Your task to perform on an android device: Show me productivity apps on the Play Store Image 0: 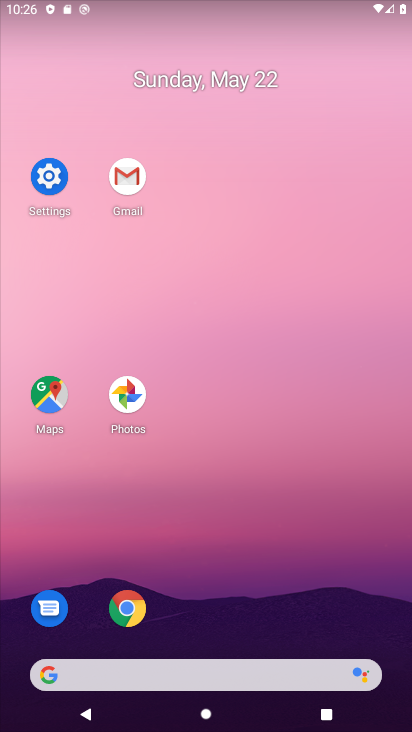
Step 0: drag from (220, 521) to (265, 85)
Your task to perform on an android device: Show me productivity apps on the Play Store Image 1: 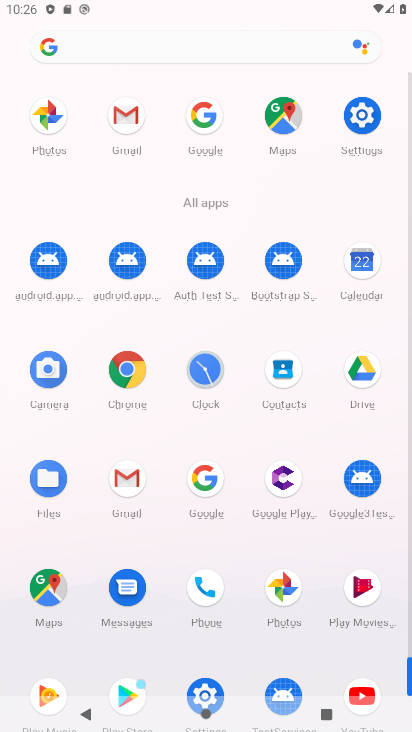
Step 1: drag from (210, 663) to (187, 309)
Your task to perform on an android device: Show me productivity apps on the Play Store Image 2: 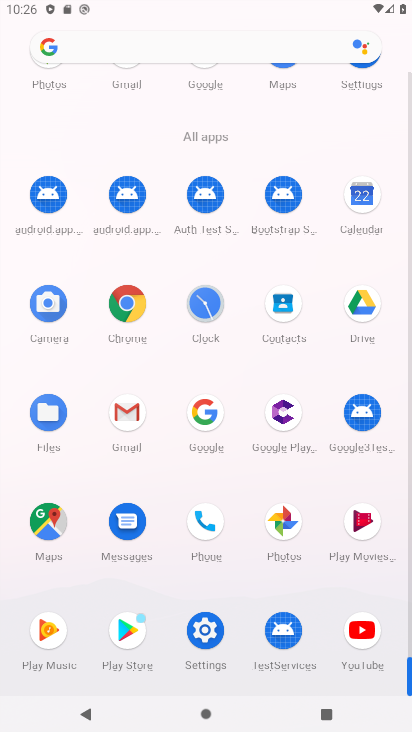
Step 2: drag from (131, 627) to (179, 575)
Your task to perform on an android device: Show me productivity apps on the Play Store Image 3: 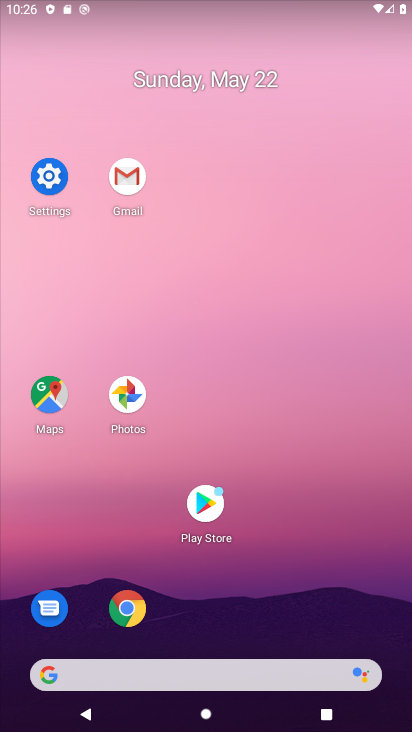
Step 3: click (205, 512)
Your task to perform on an android device: Show me productivity apps on the Play Store Image 4: 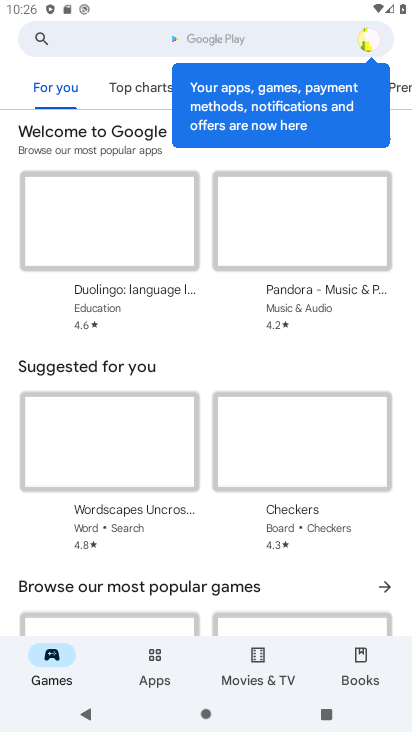
Step 4: click (156, 673)
Your task to perform on an android device: Show me productivity apps on the Play Store Image 5: 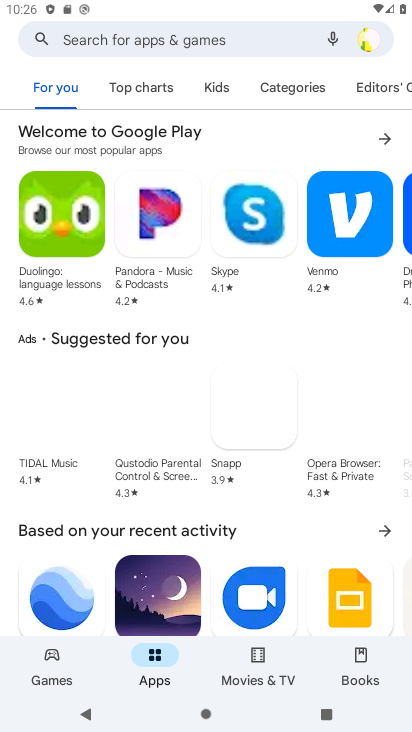
Step 5: click (307, 87)
Your task to perform on an android device: Show me productivity apps on the Play Store Image 6: 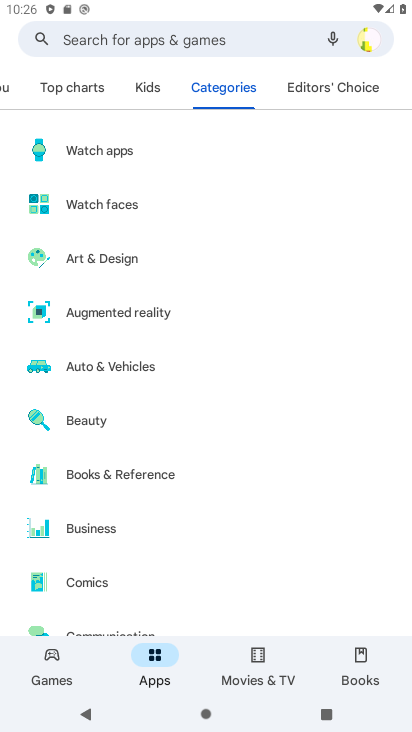
Step 6: drag from (206, 543) to (244, 89)
Your task to perform on an android device: Show me productivity apps on the Play Store Image 7: 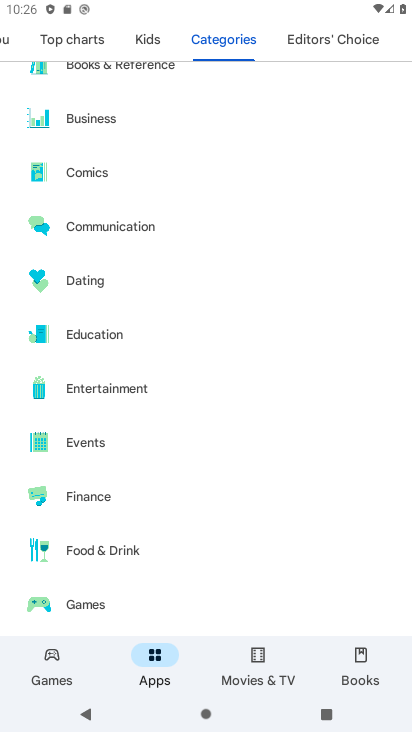
Step 7: drag from (176, 520) to (203, 0)
Your task to perform on an android device: Show me productivity apps on the Play Store Image 8: 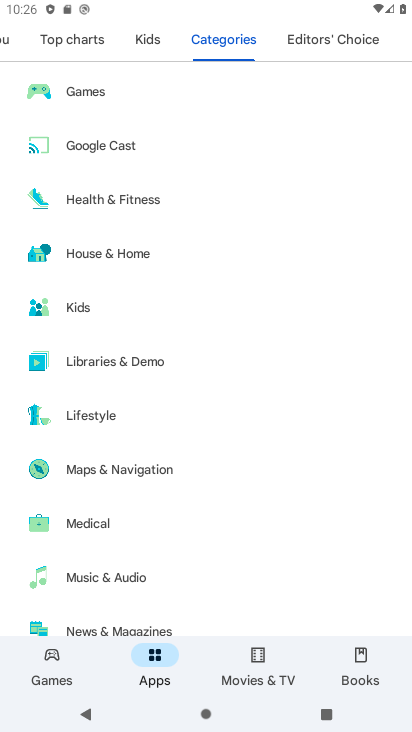
Step 8: drag from (172, 567) to (181, 80)
Your task to perform on an android device: Show me productivity apps on the Play Store Image 9: 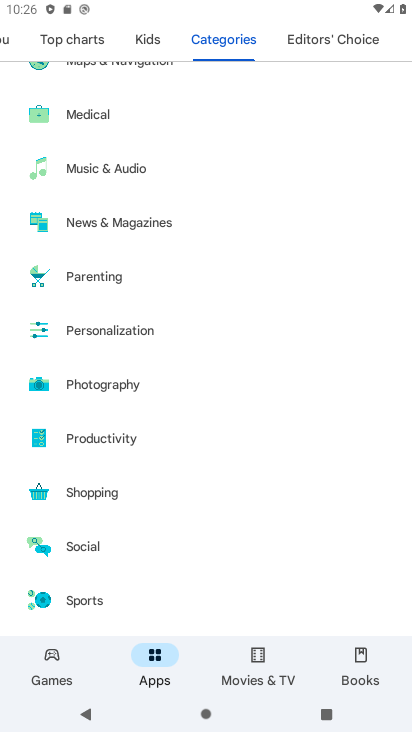
Step 9: click (140, 444)
Your task to perform on an android device: Show me productivity apps on the Play Store Image 10: 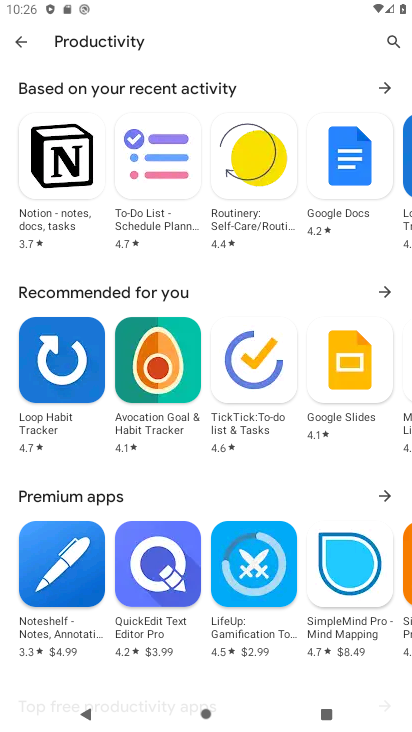
Step 10: task complete